Your task to perform on an android device: Show me productivity apps on the Play Store Image 0: 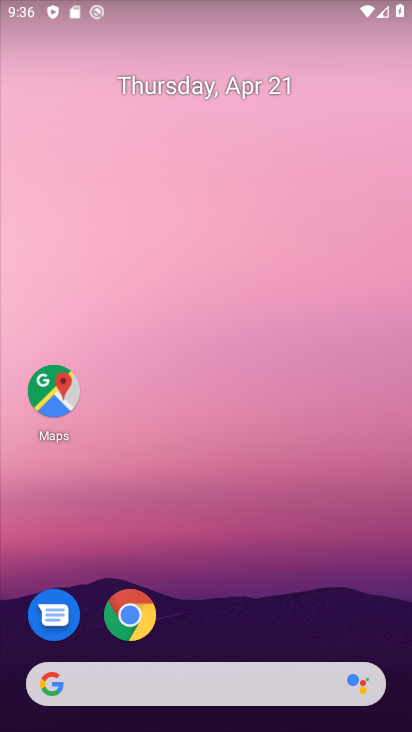
Step 0: drag from (209, 726) to (203, 179)
Your task to perform on an android device: Show me productivity apps on the Play Store Image 1: 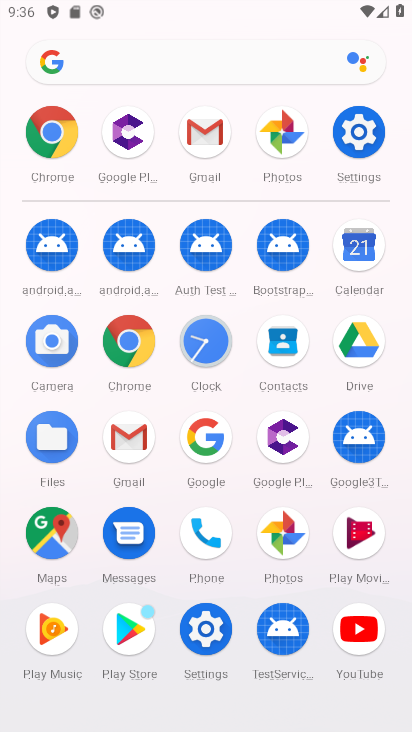
Step 1: click (128, 624)
Your task to perform on an android device: Show me productivity apps on the Play Store Image 2: 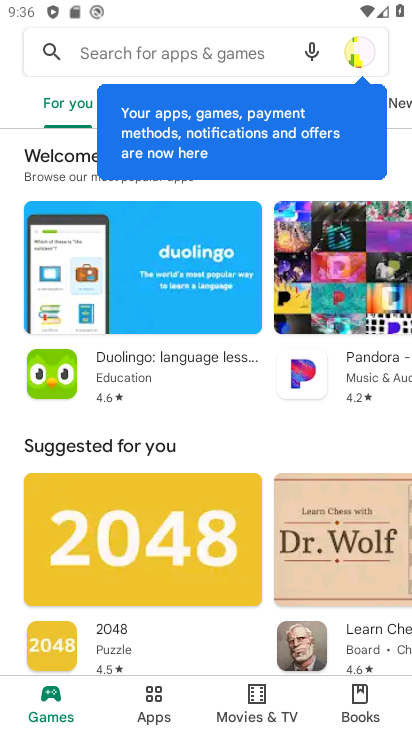
Step 2: click (153, 698)
Your task to perform on an android device: Show me productivity apps on the Play Store Image 3: 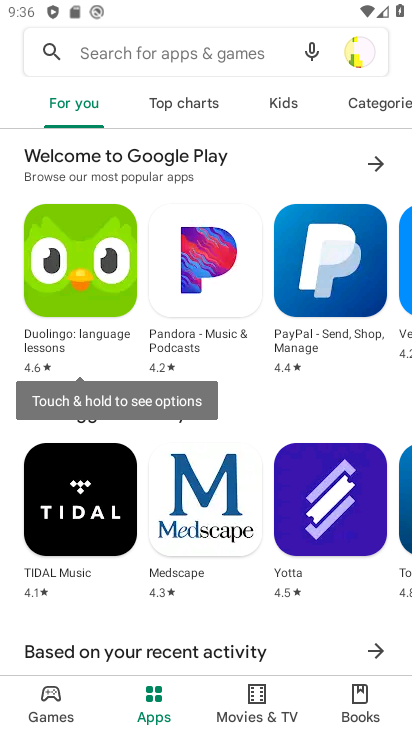
Step 3: click (369, 102)
Your task to perform on an android device: Show me productivity apps on the Play Store Image 4: 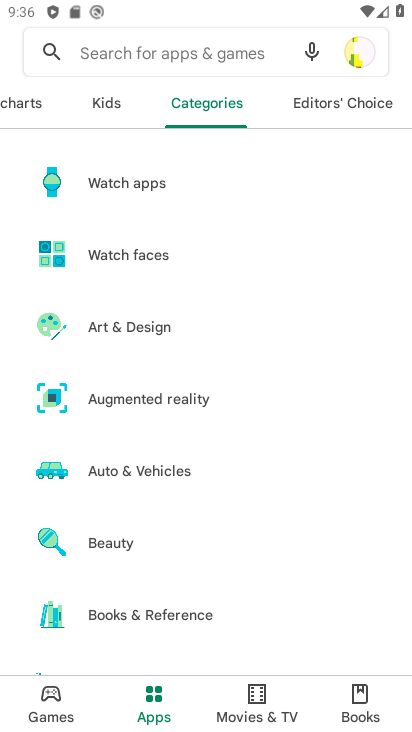
Step 4: drag from (184, 640) to (176, 153)
Your task to perform on an android device: Show me productivity apps on the Play Store Image 5: 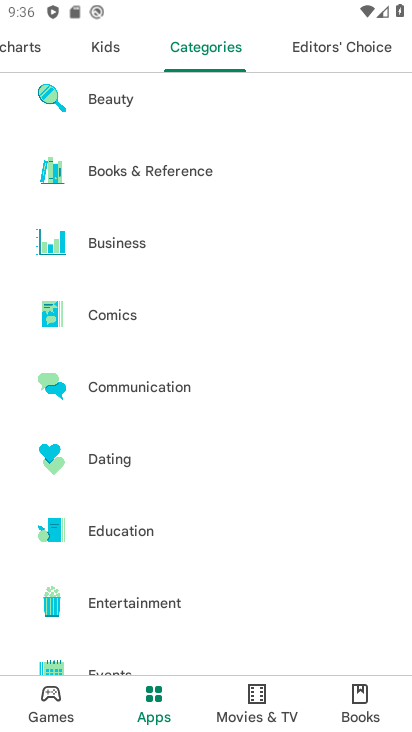
Step 5: drag from (177, 647) to (193, 124)
Your task to perform on an android device: Show me productivity apps on the Play Store Image 6: 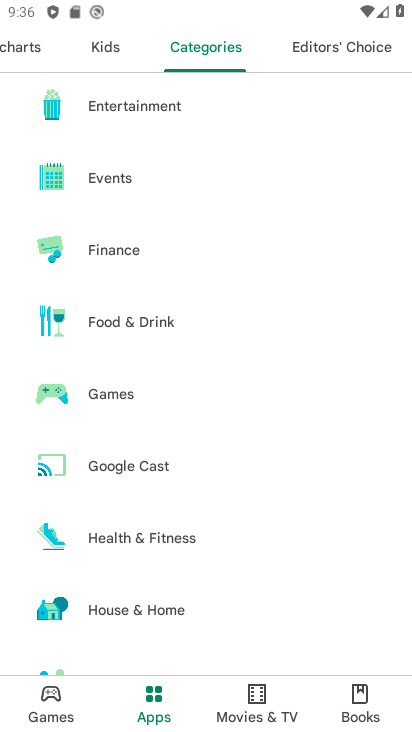
Step 6: drag from (189, 634) to (193, 160)
Your task to perform on an android device: Show me productivity apps on the Play Store Image 7: 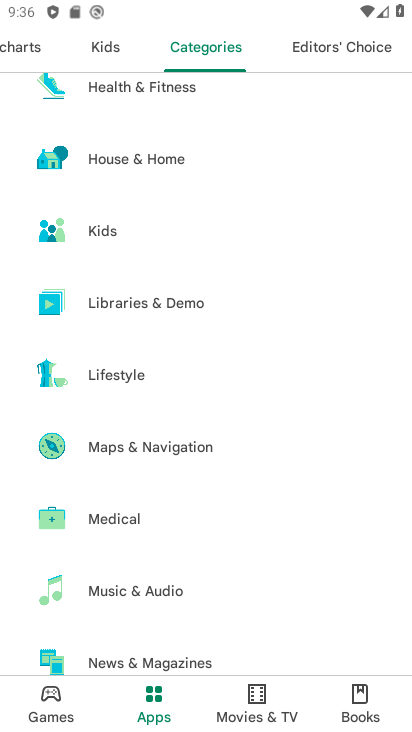
Step 7: drag from (160, 627) to (187, 202)
Your task to perform on an android device: Show me productivity apps on the Play Store Image 8: 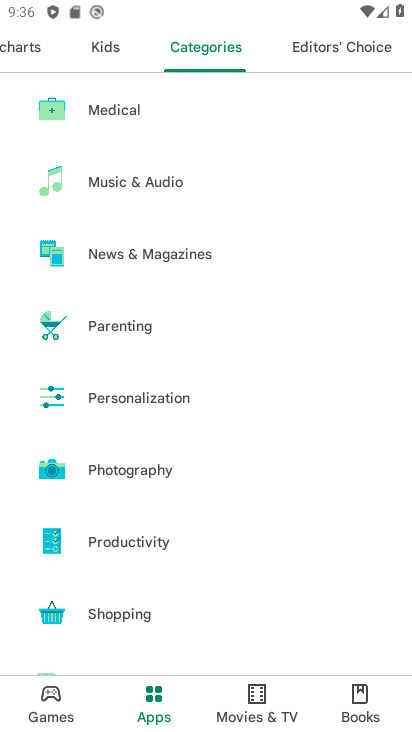
Step 8: click (109, 539)
Your task to perform on an android device: Show me productivity apps on the Play Store Image 9: 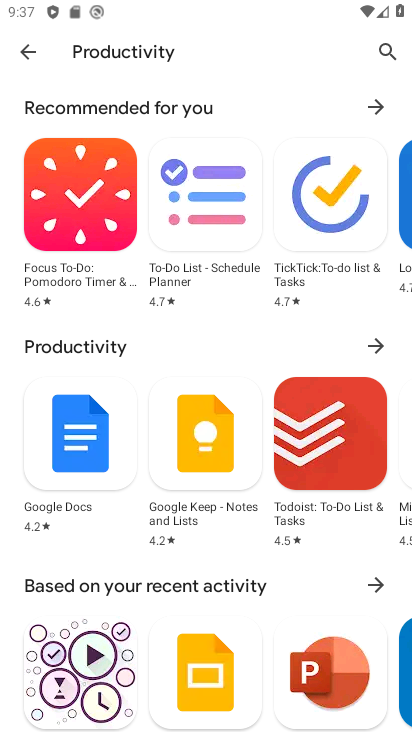
Step 9: task complete